Your task to perform on an android device: empty trash in the gmail app Image 0: 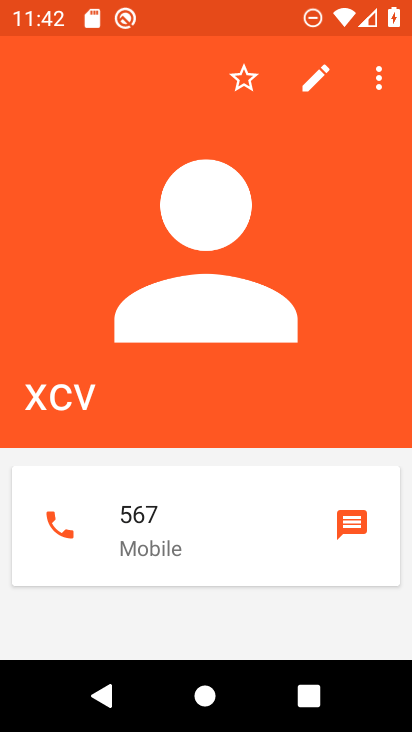
Step 0: press home button
Your task to perform on an android device: empty trash in the gmail app Image 1: 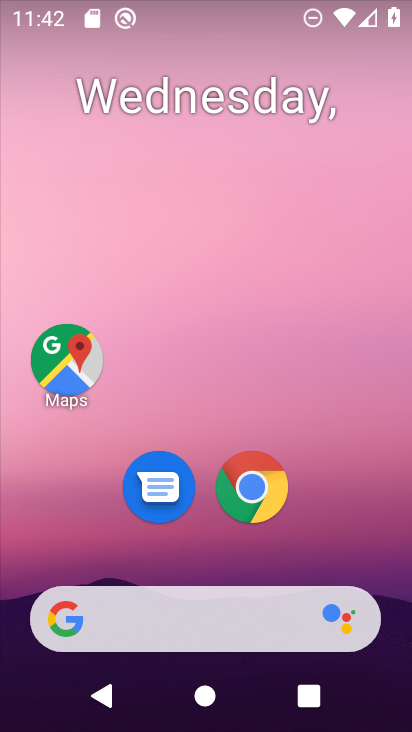
Step 1: drag from (327, 519) to (239, 31)
Your task to perform on an android device: empty trash in the gmail app Image 2: 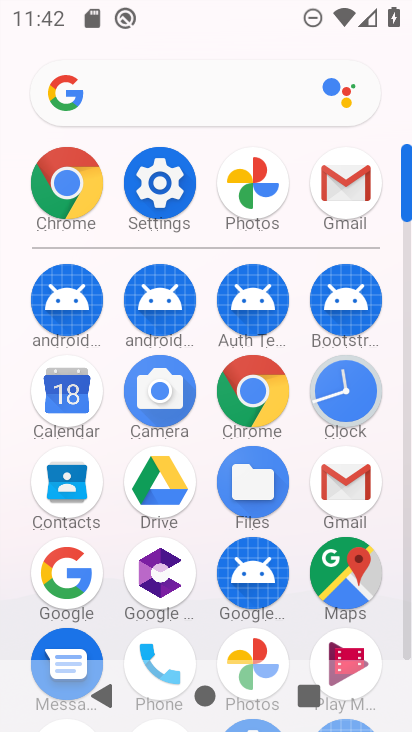
Step 2: click (340, 176)
Your task to perform on an android device: empty trash in the gmail app Image 3: 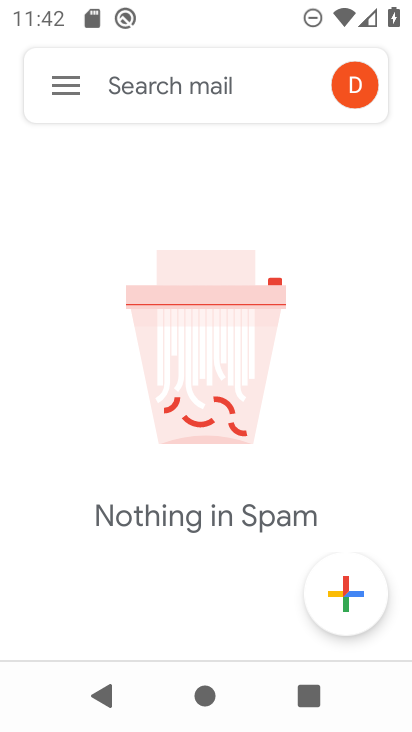
Step 3: click (56, 75)
Your task to perform on an android device: empty trash in the gmail app Image 4: 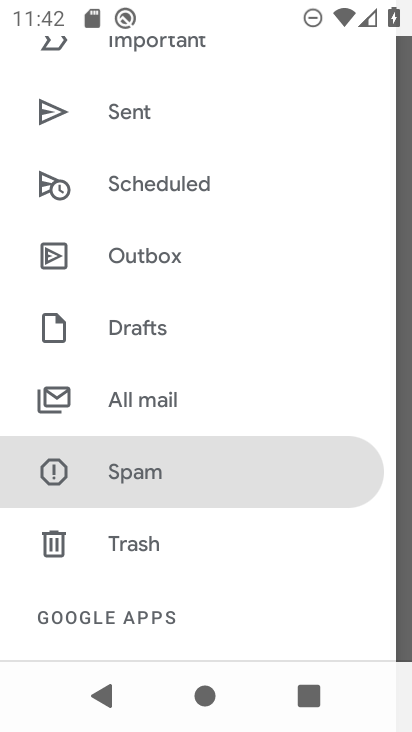
Step 4: click (139, 546)
Your task to perform on an android device: empty trash in the gmail app Image 5: 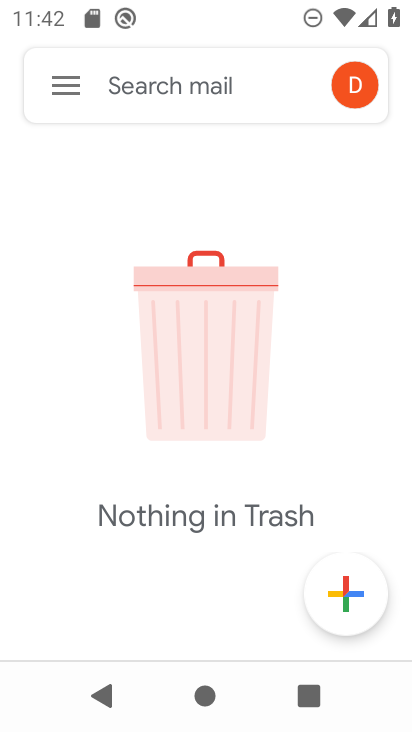
Step 5: task complete